Your task to perform on an android device: Open Yahoo.com Image 0: 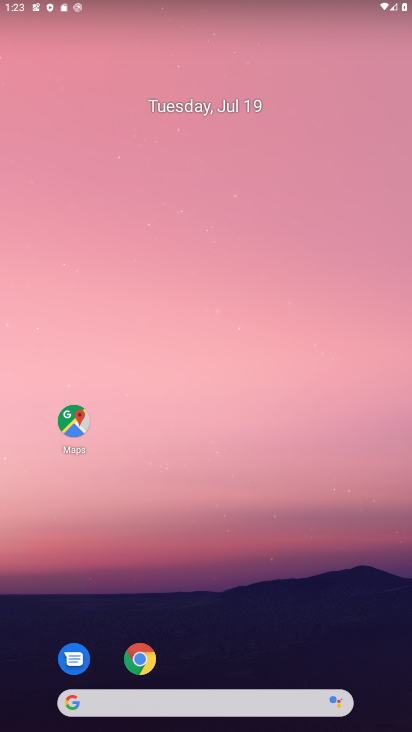
Step 0: click (142, 672)
Your task to perform on an android device: Open Yahoo.com Image 1: 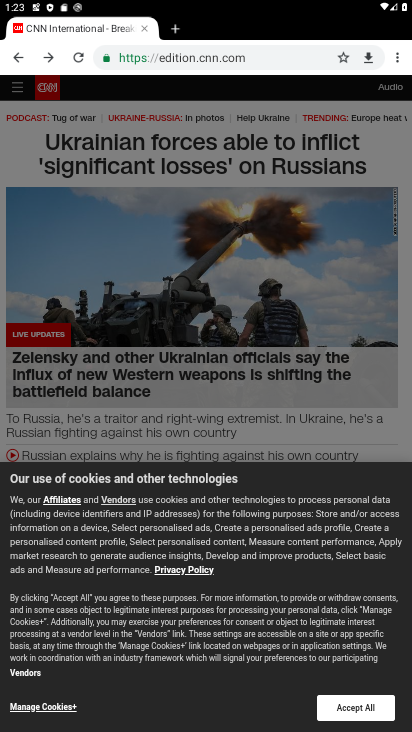
Step 1: click (187, 51)
Your task to perform on an android device: Open Yahoo.com Image 2: 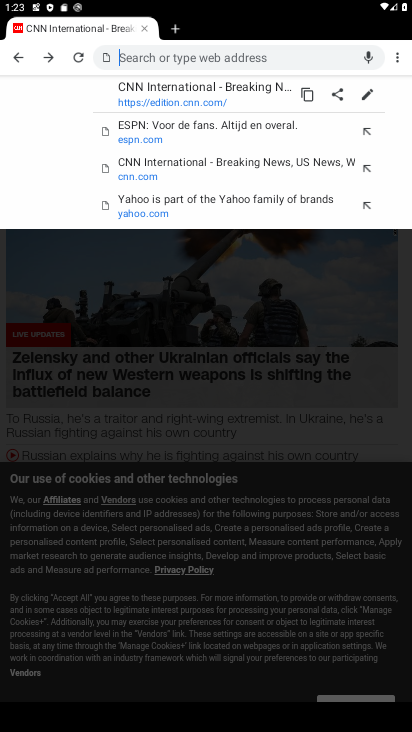
Step 2: type "Yahoo.com"
Your task to perform on an android device: Open Yahoo.com Image 3: 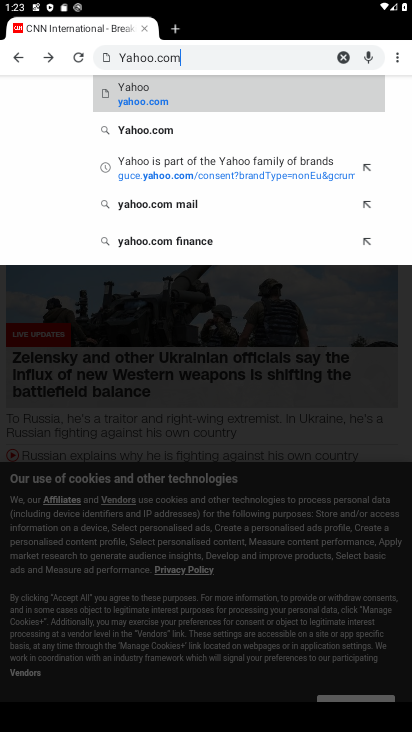
Step 3: click (203, 97)
Your task to perform on an android device: Open Yahoo.com Image 4: 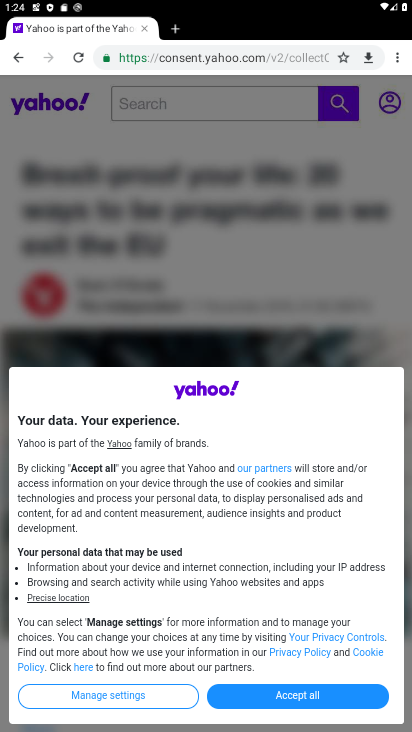
Step 4: task complete